Your task to perform on an android device: turn off sleep mode Image 0: 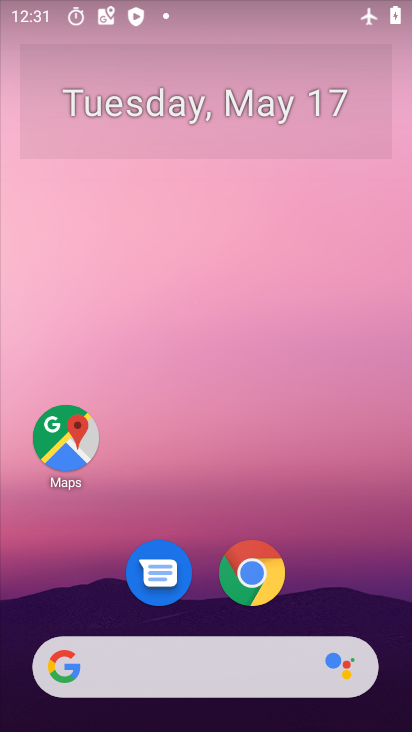
Step 0: drag from (251, 559) to (355, 0)
Your task to perform on an android device: turn off sleep mode Image 1: 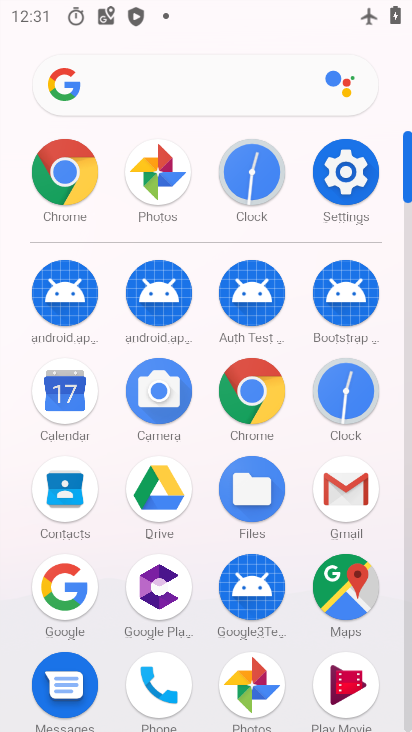
Step 1: click (351, 400)
Your task to perform on an android device: turn off sleep mode Image 2: 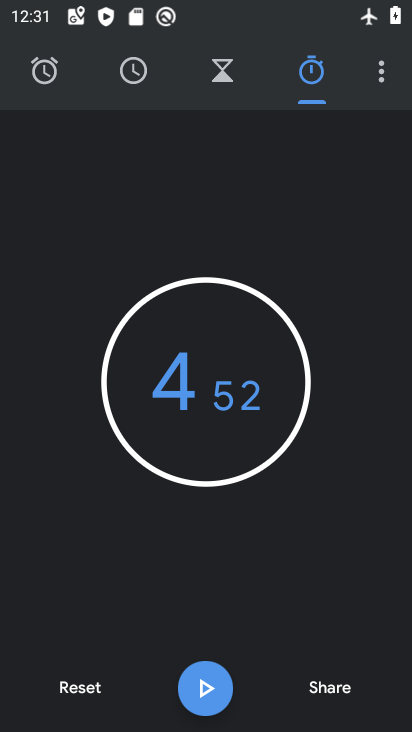
Step 2: press home button
Your task to perform on an android device: turn off sleep mode Image 3: 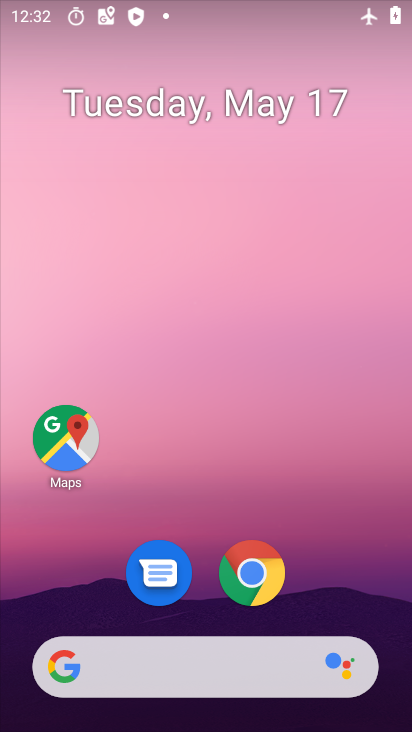
Step 3: drag from (198, 717) to (201, 177)
Your task to perform on an android device: turn off sleep mode Image 4: 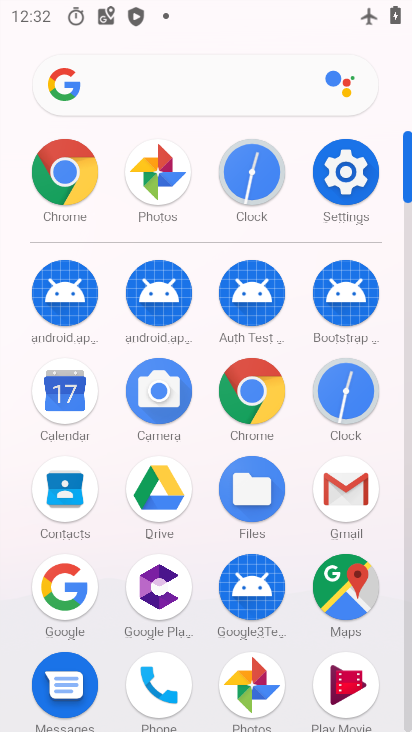
Step 4: click (354, 179)
Your task to perform on an android device: turn off sleep mode Image 5: 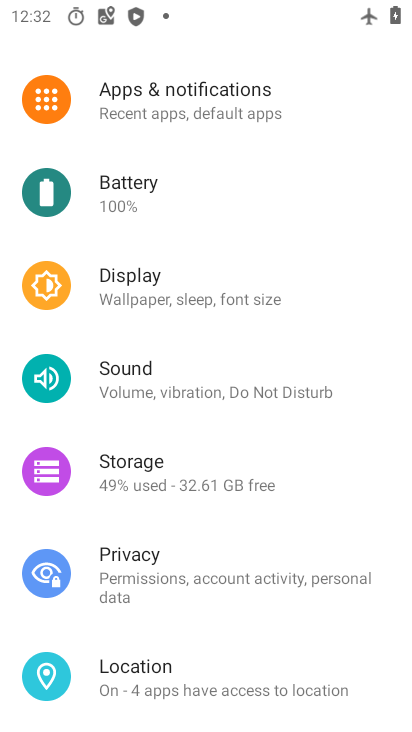
Step 5: click (271, 302)
Your task to perform on an android device: turn off sleep mode Image 6: 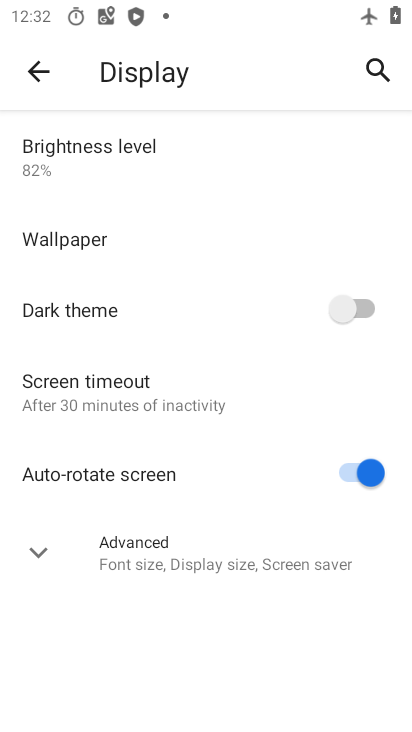
Step 6: task complete